Your task to perform on an android device: Go to Google maps Image 0: 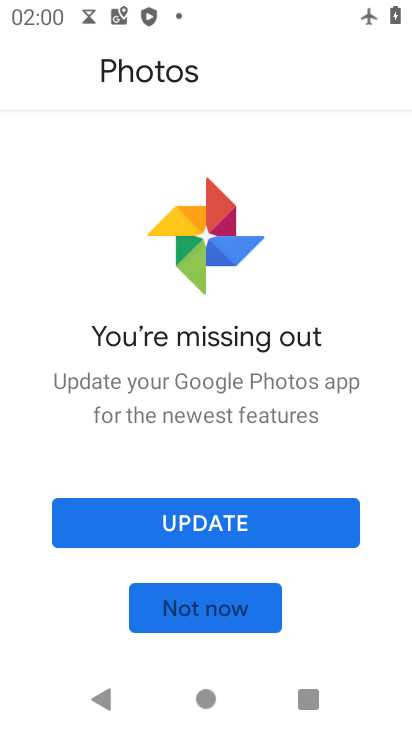
Step 0: press home button
Your task to perform on an android device: Go to Google maps Image 1: 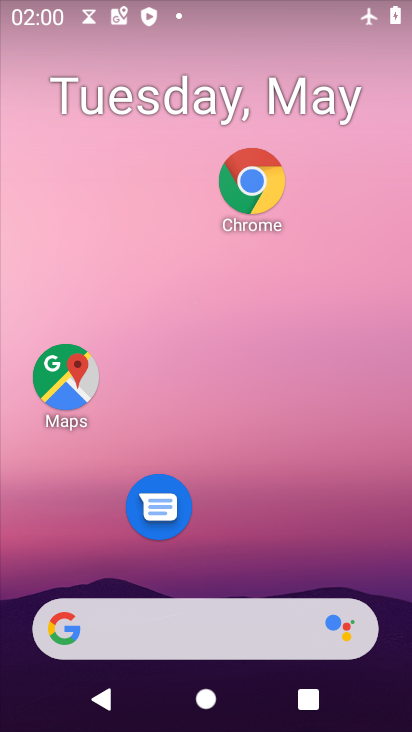
Step 1: click (60, 351)
Your task to perform on an android device: Go to Google maps Image 2: 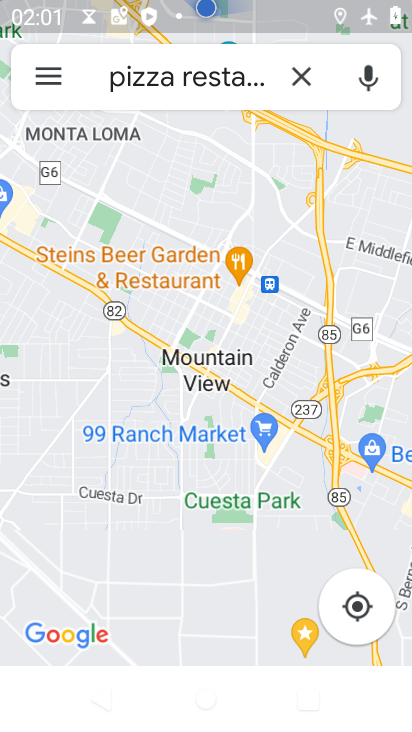
Step 2: task complete